Your task to perform on an android device: Go to settings Image 0: 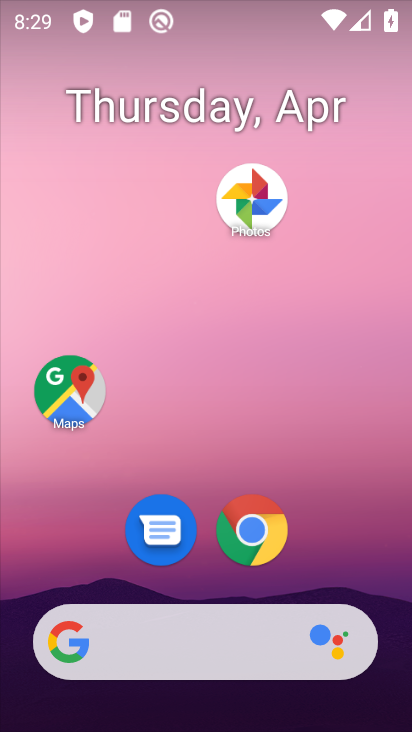
Step 0: drag from (343, 513) to (357, 33)
Your task to perform on an android device: Go to settings Image 1: 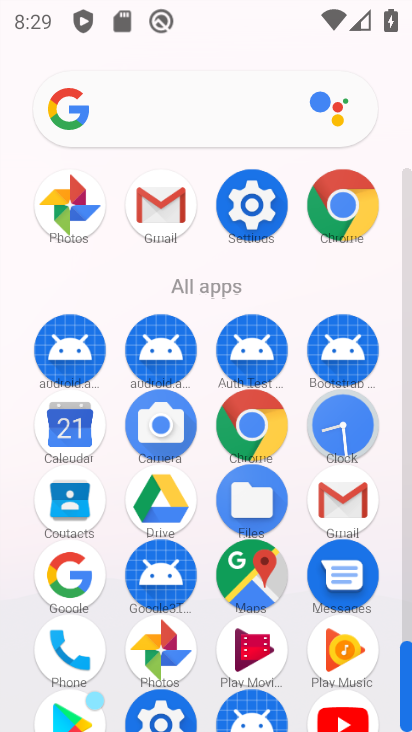
Step 1: click (254, 189)
Your task to perform on an android device: Go to settings Image 2: 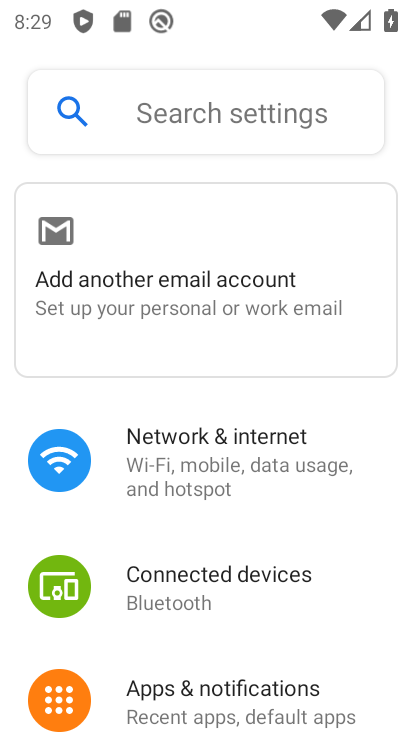
Step 2: task complete